Your task to perform on an android device: turn off javascript in the chrome app Image 0: 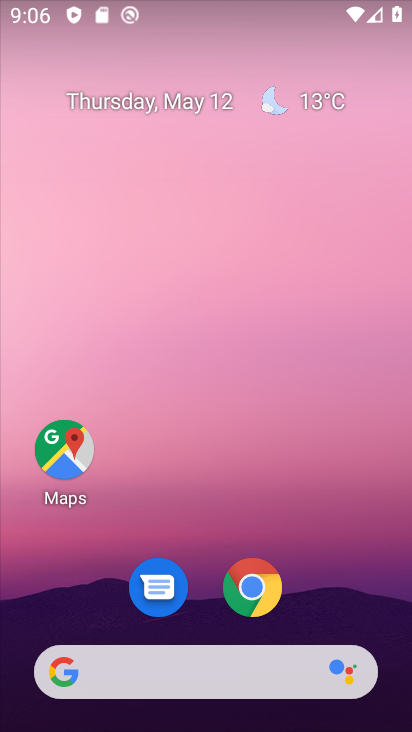
Step 0: drag from (358, 582) to (360, 101)
Your task to perform on an android device: turn off javascript in the chrome app Image 1: 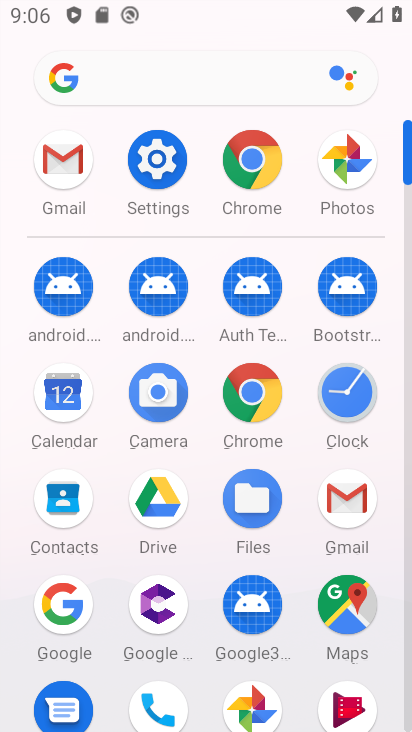
Step 1: click (250, 152)
Your task to perform on an android device: turn off javascript in the chrome app Image 2: 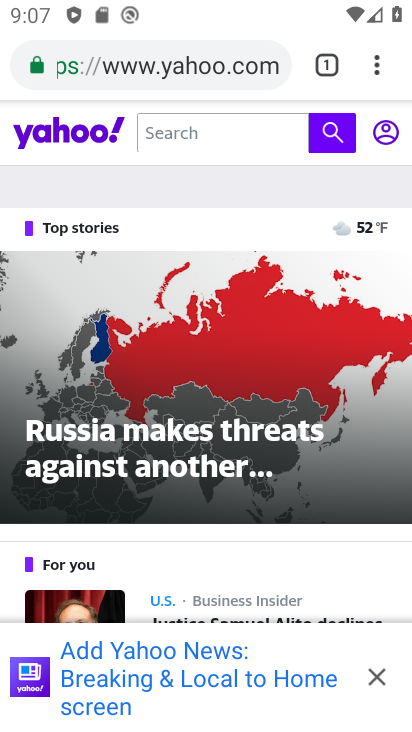
Step 2: drag from (377, 78) to (172, 632)
Your task to perform on an android device: turn off javascript in the chrome app Image 3: 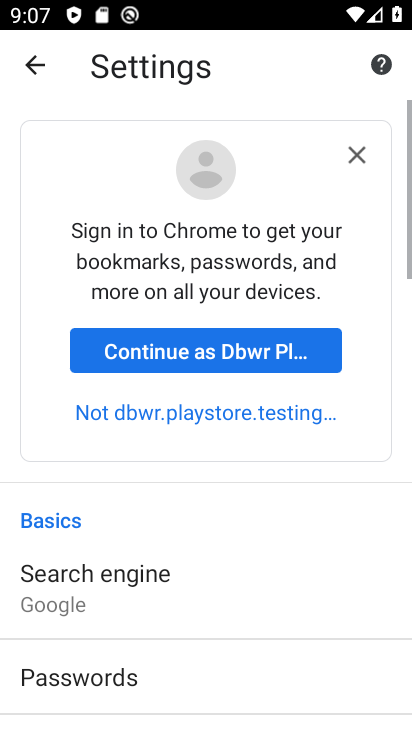
Step 3: drag from (167, 604) to (170, 136)
Your task to perform on an android device: turn off javascript in the chrome app Image 4: 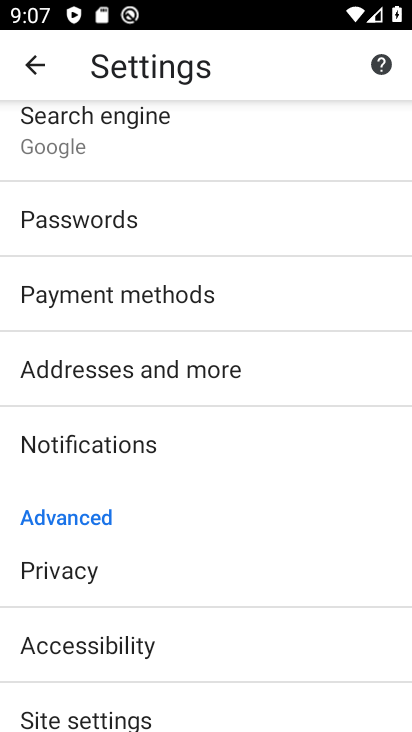
Step 4: drag from (176, 617) to (183, 124)
Your task to perform on an android device: turn off javascript in the chrome app Image 5: 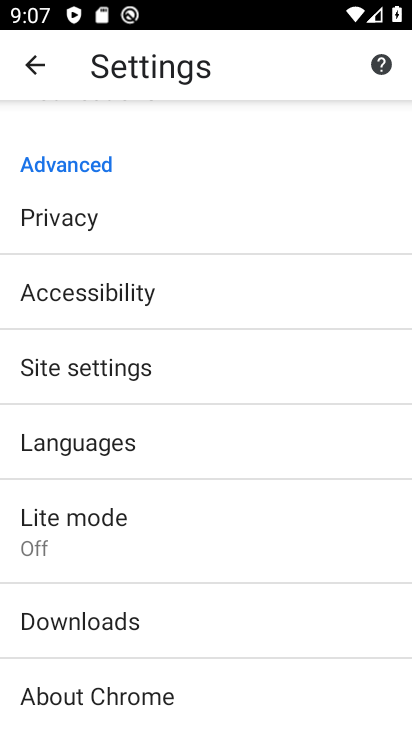
Step 5: click (77, 372)
Your task to perform on an android device: turn off javascript in the chrome app Image 6: 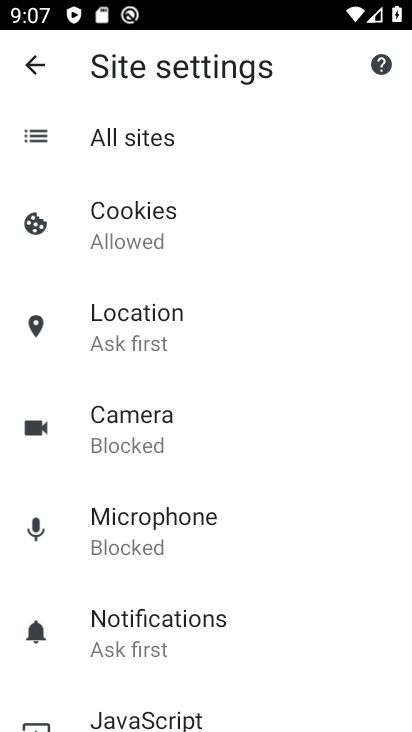
Step 6: drag from (172, 618) to (158, 258)
Your task to perform on an android device: turn off javascript in the chrome app Image 7: 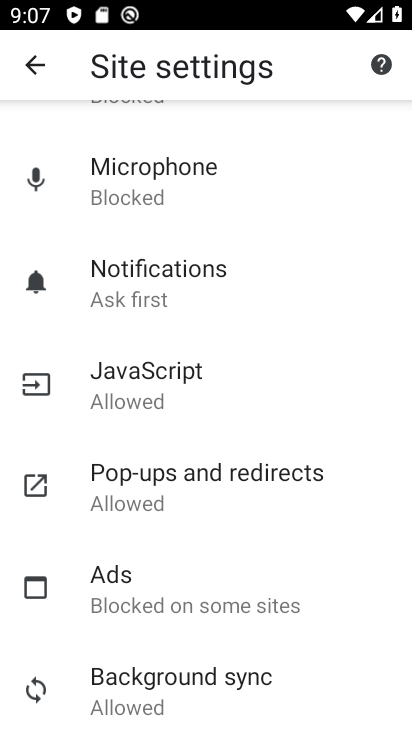
Step 7: click (162, 389)
Your task to perform on an android device: turn off javascript in the chrome app Image 8: 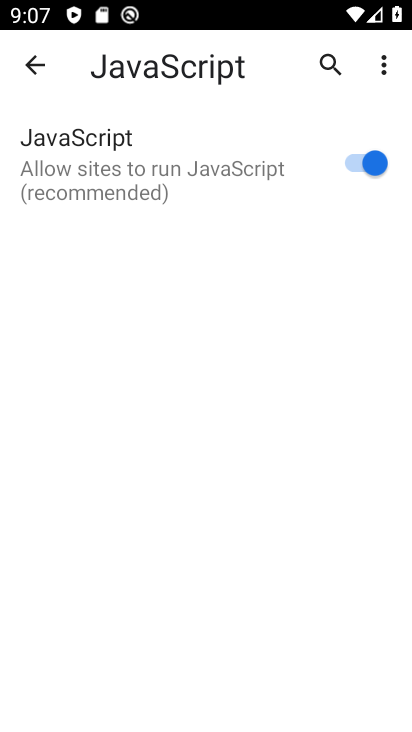
Step 8: click (370, 157)
Your task to perform on an android device: turn off javascript in the chrome app Image 9: 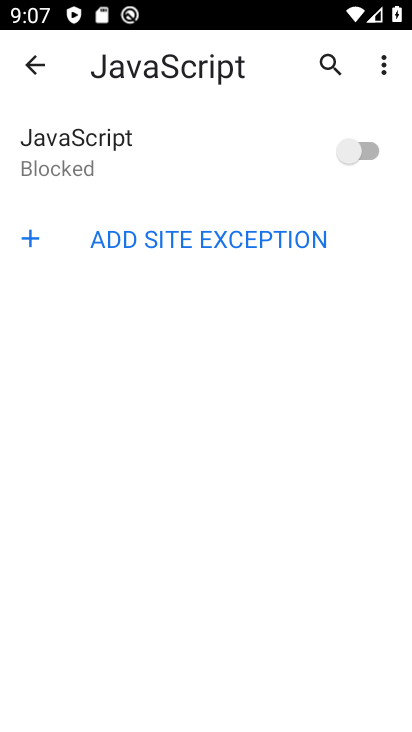
Step 9: task complete